Your task to perform on an android device: turn smart compose on in the gmail app Image 0: 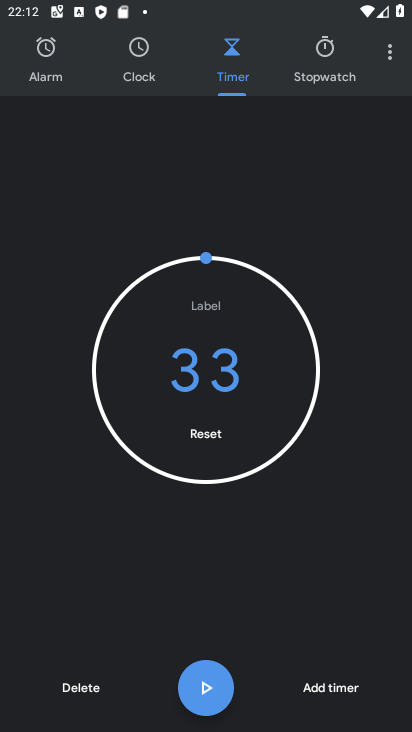
Step 0: press home button
Your task to perform on an android device: turn smart compose on in the gmail app Image 1: 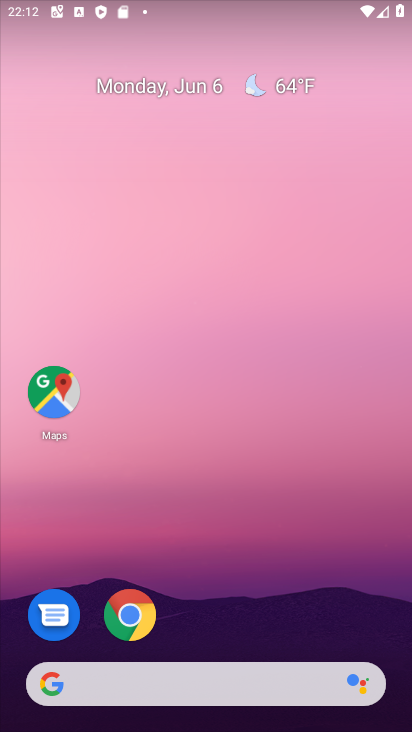
Step 1: drag from (402, 700) to (331, 177)
Your task to perform on an android device: turn smart compose on in the gmail app Image 2: 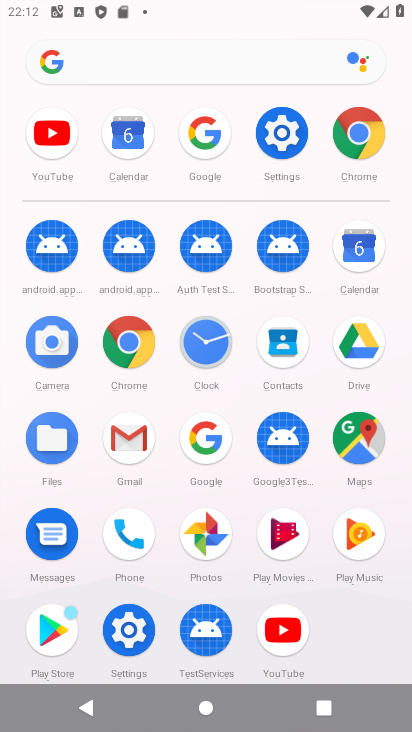
Step 2: click (135, 438)
Your task to perform on an android device: turn smart compose on in the gmail app Image 3: 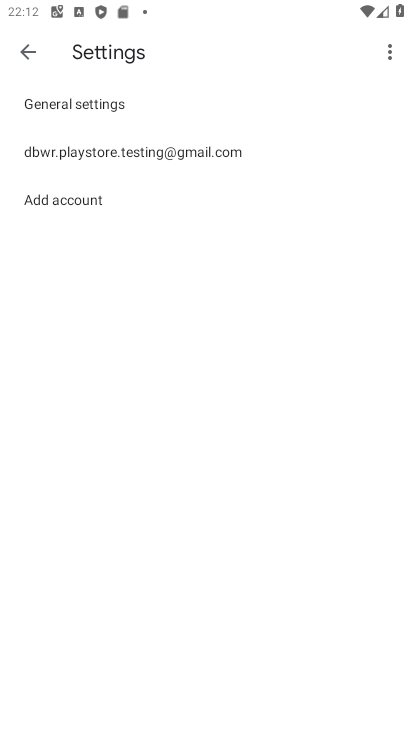
Step 3: click (51, 141)
Your task to perform on an android device: turn smart compose on in the gmail app Image 4: 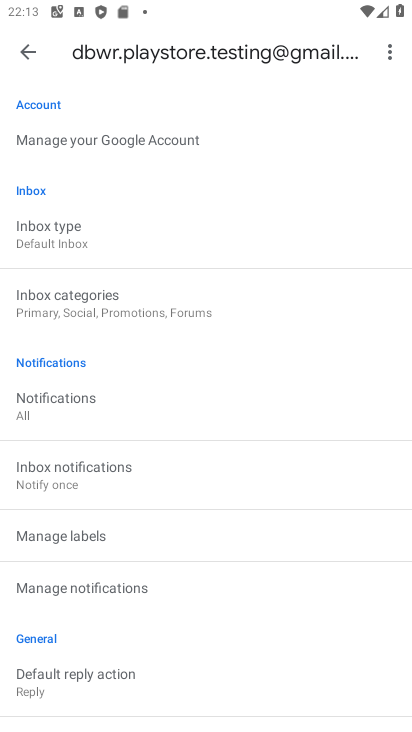
Step 4: drag from (204, 627) to (201, 275)
Your task to perform on an android device: turn smart compose on in the gmail app Image 5: 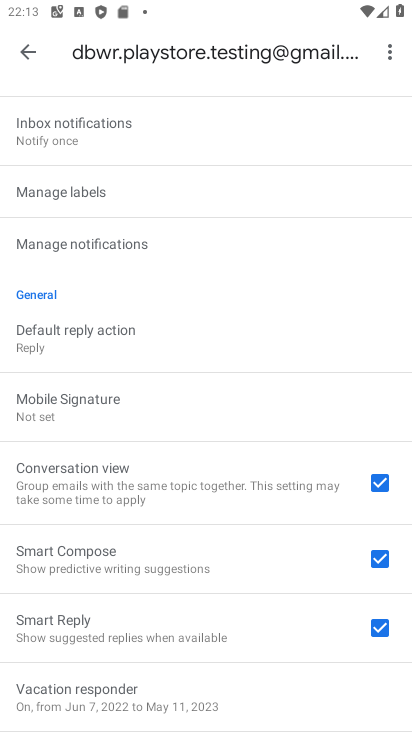
Step 5: click (93, 554)
Your task to perform on an android device: turn smart compose on in the gmail app Image 6: 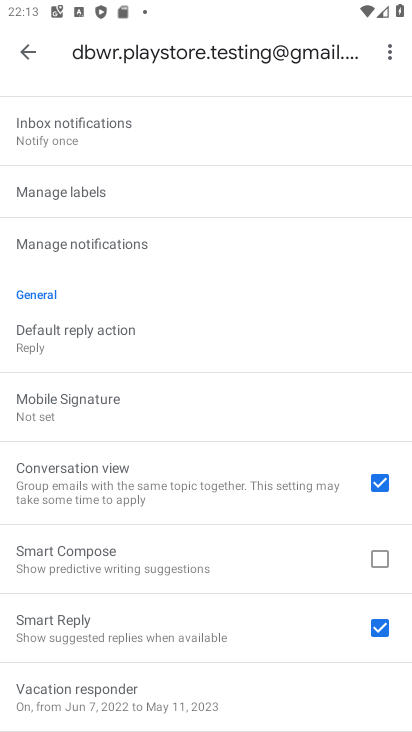
Step 6: click (93, 554)
Your task to perform on an android device: turn smart compose on in the gmail app Image 7: 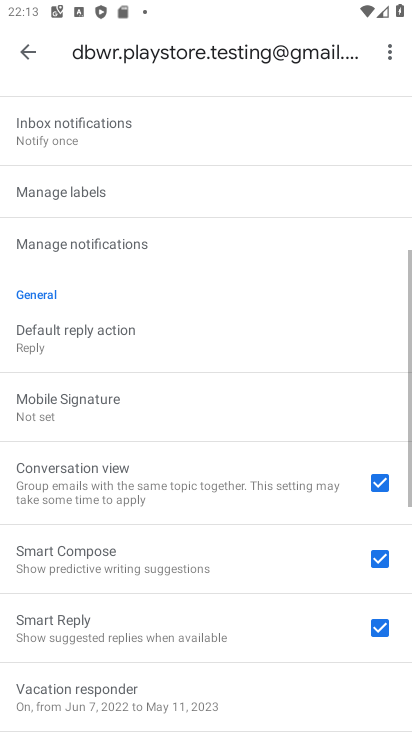
Step 7: task complete